Your task to perform on an android device: allow cookies in the chrome app Image 0: 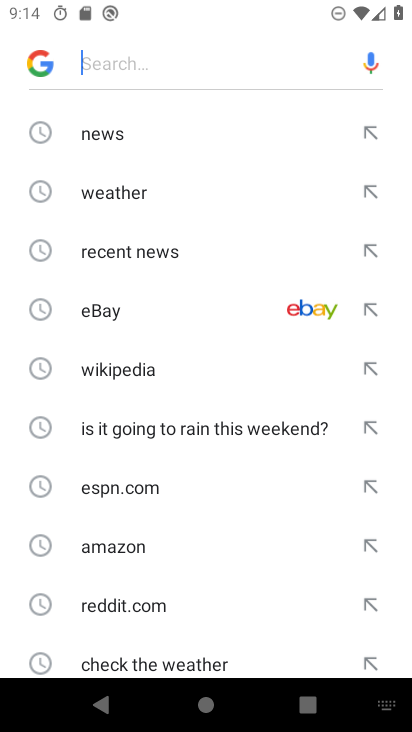
Step 0: press home button
Your task to perform on an android device: allow cookies in the chrome app Image 1: 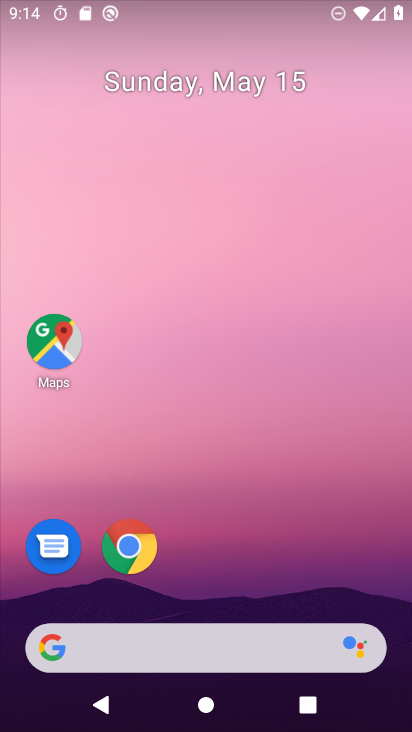
Step 1: click (131, 541)
Your task to perform on an android device: allow cookies in the chrome app Image 2: 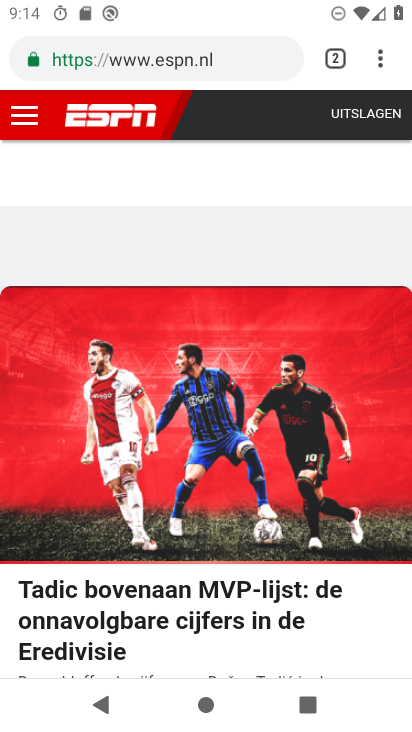
Step 2: click (379, 58)
Your task to perform on an android device: allow cookies in the chrome app Image 3: 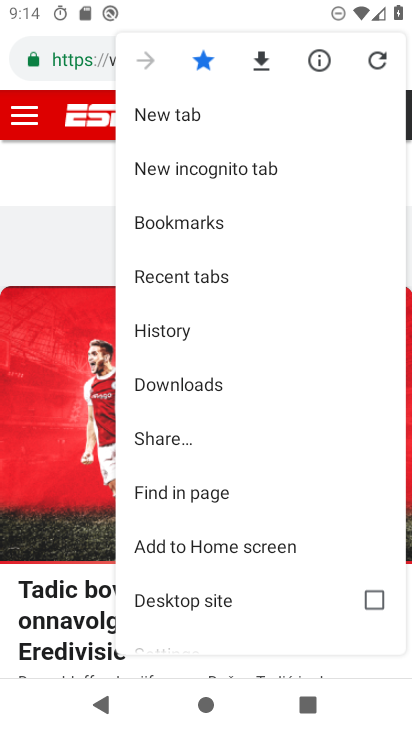
Step 3: drag from (294, 477) to (325, 242)
Your task to perform on an android device: allow cookies in the chrome app Image 4: 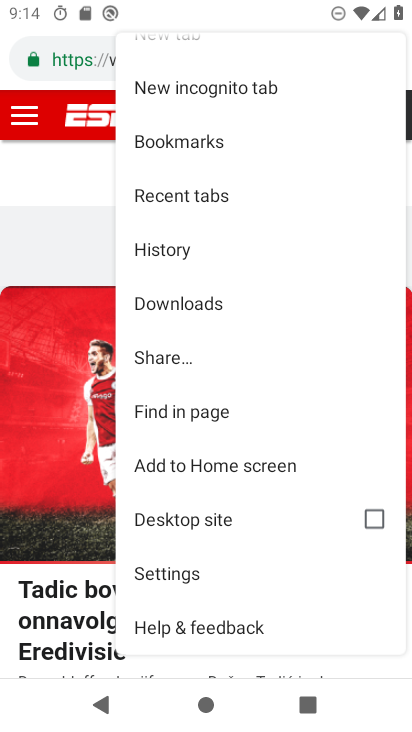
Step 4: click (219, 565)
Your task to perform on an android device: allow cookies in the chrome app Image 5: 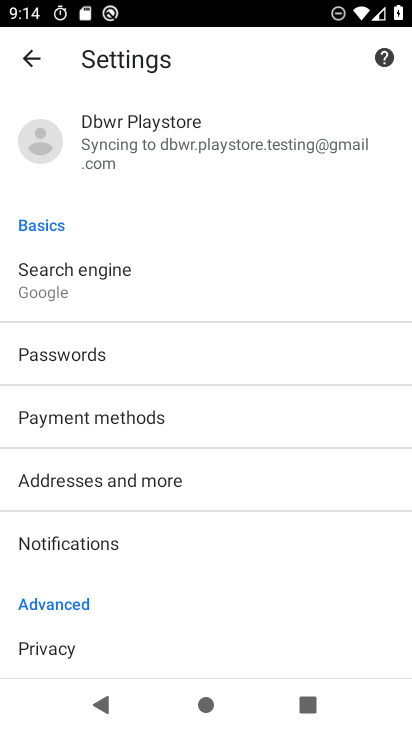
Step 5: drag from (225, 476) to (215, 187)
Your task to perform on an android device: allow cookies in the chrome app Image 6: 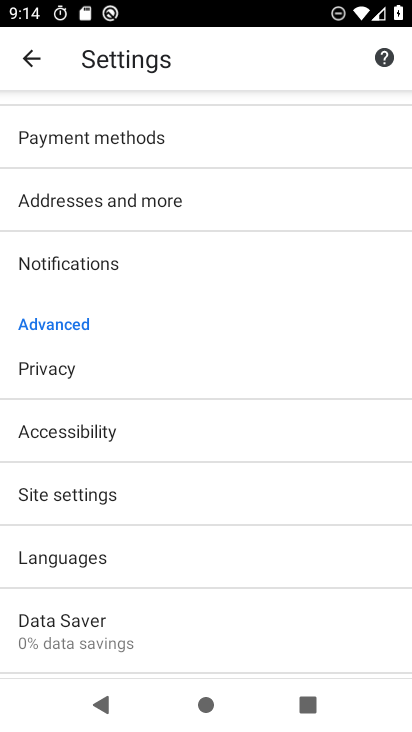
Step 6: click (208, 498)
Your task to perform on an android device: allow cookies in the chrome app Image 7: 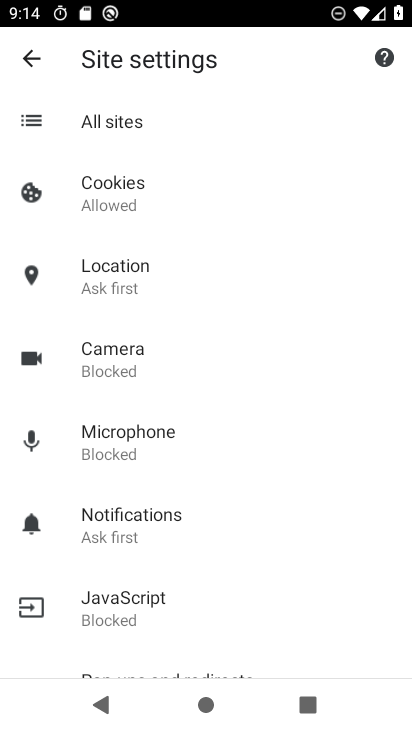
Step 7: click (209, 206)
Your task to perform on an android device: allow cookies in the chrome app Image 8: 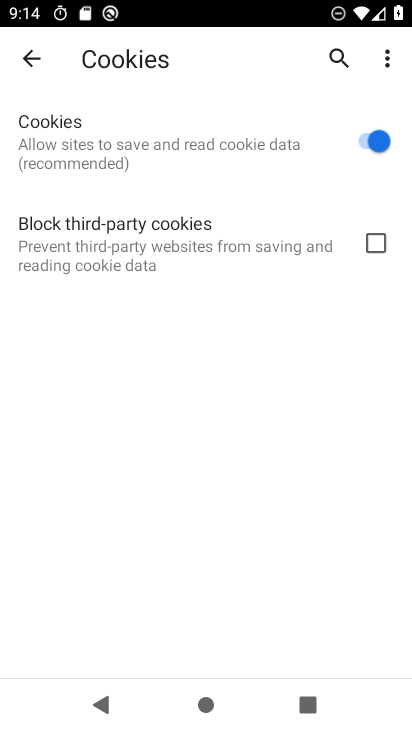
Step 8: task complete